Your task to perform on an android device: Search for vegetarian restaurants on Maps Image 0: 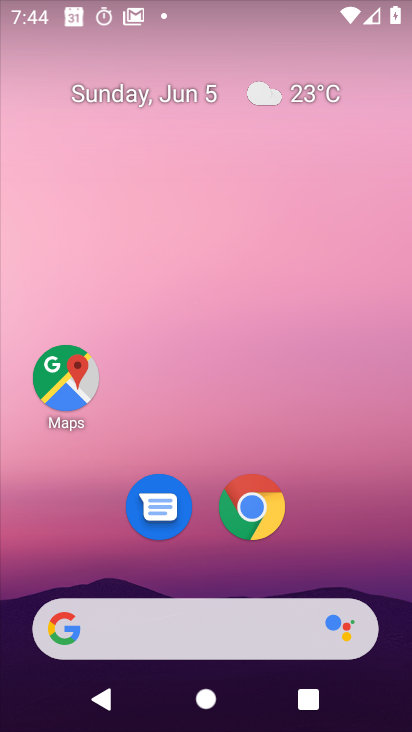
Step 0: drag from (271, 648) to (270, 101)
Your task to perform on an android device: Search for vegetarian restaurants on Maps Image 1: 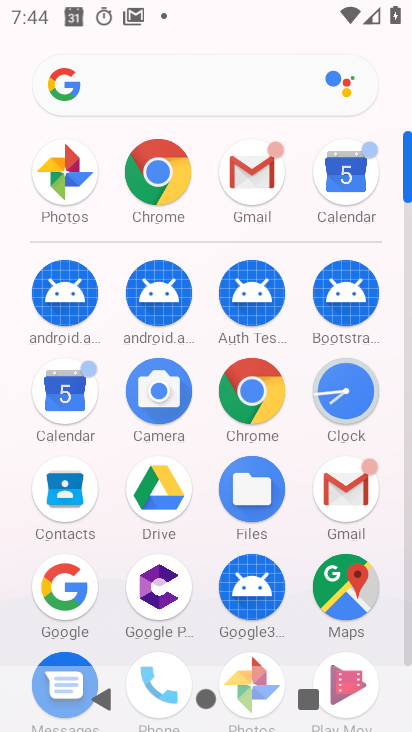
Step 1: click (342, 597)
Your task to perform on an android device: Search for vegetarian restaurants on Maps Image 2: 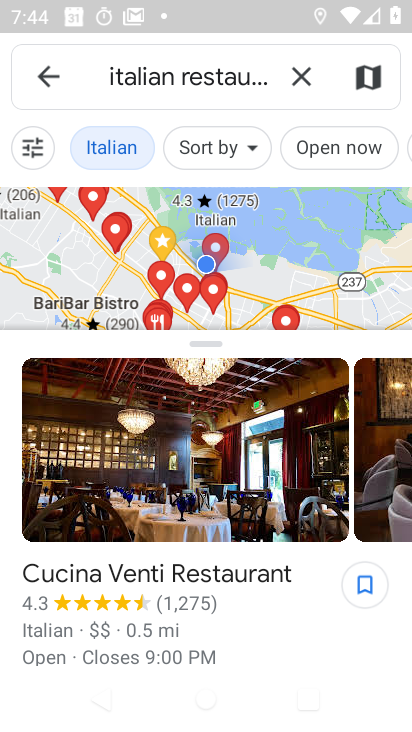
Step 2: click (295, 75)
Your task to perform on an android device: Search for vegetarian restaurants on Maps Image 3: 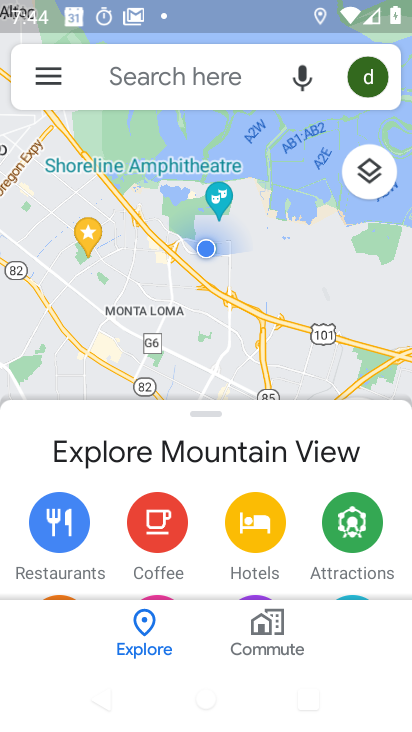
Step 3: click (168, 76)
Your task to perform on an android device: Search for vegetarian restaurants on Maps Image 4: 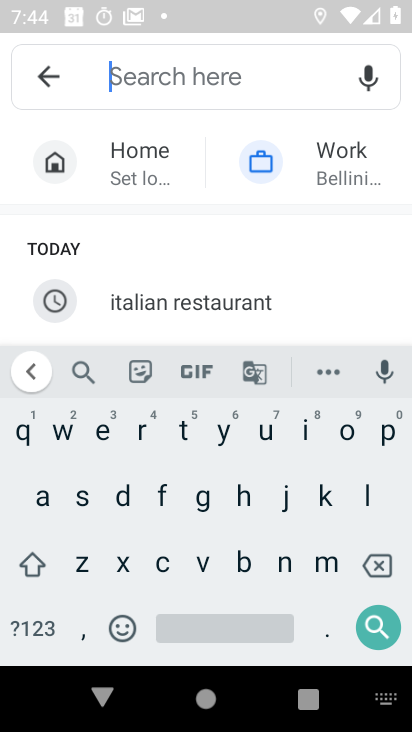
Step 4: click (206, 567)
Your task to perform on an android device: Search for vegetarian restaurants on Maps Image 5: 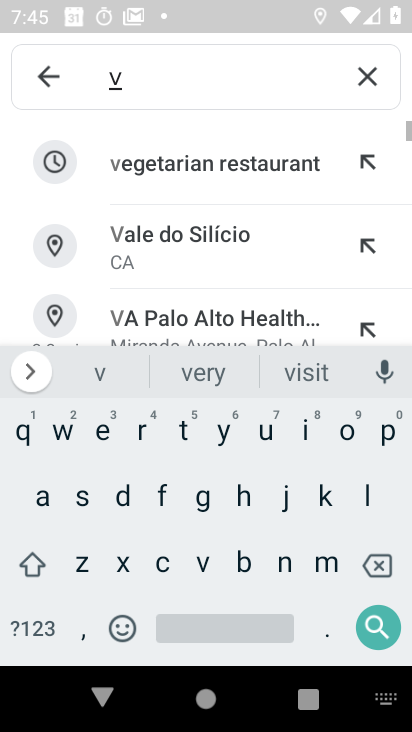
Step 5: click (216, 175)
Your task to perform on an android device: Search for vegetarian restaurants on Maps Image 6: 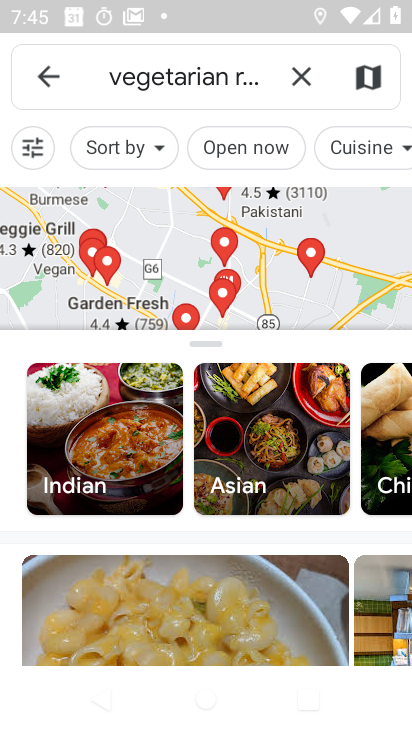
Step 6: task complete